Your task to perform on an android device: Go to Google maps Image 0: 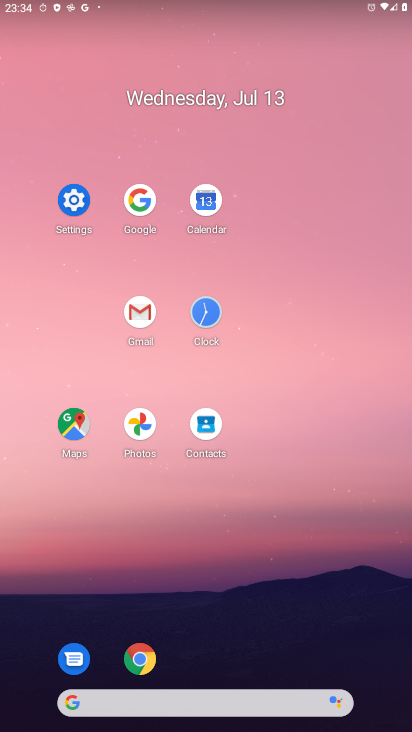
Step 0: click (87, 425)
Your task to perform on an android device: Go to Google maps Image 1: 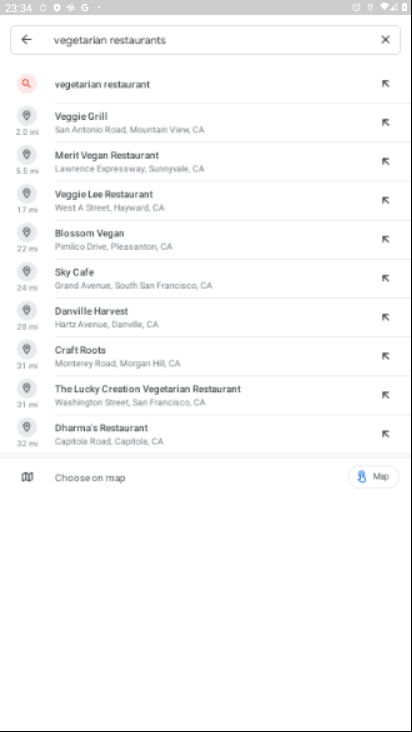
Step 1: task complete